Your task to perform on an android device: turn smart compose on in the gmail app Image 0: 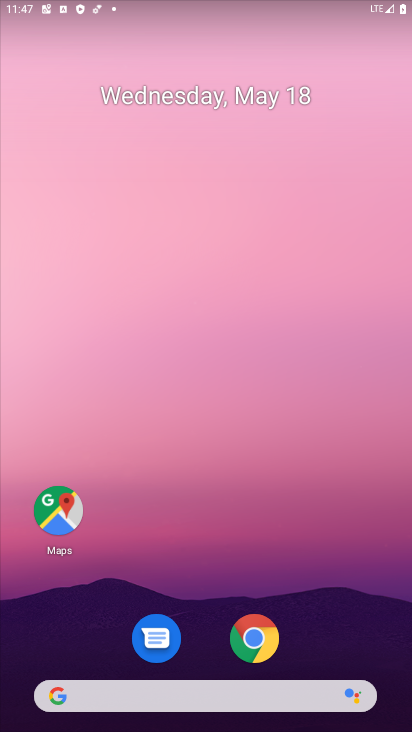
Step 0: drag from (353, 611) to (281, 70)
Your task to perform on an android device: turn smart compose on in the gmail app Image 1: 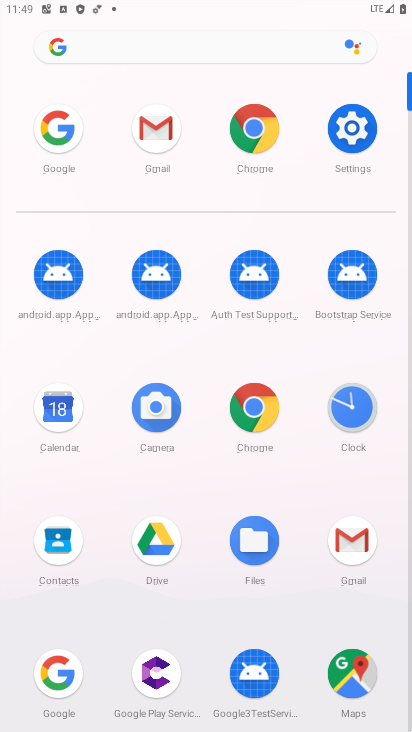
Step 1: click (169, 154)
Your task to perform on an android device: turn smart compose on in the gmail app Image 2: 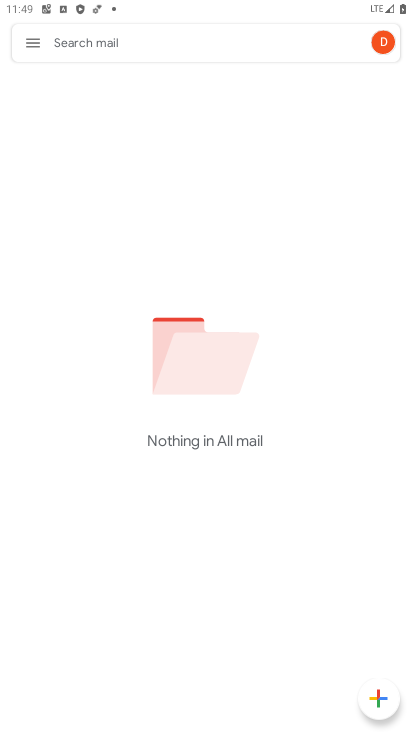
Step 2: click (30, 40)
Your task to perform on an android device: turn smart compose on in the gmail app Image 3: 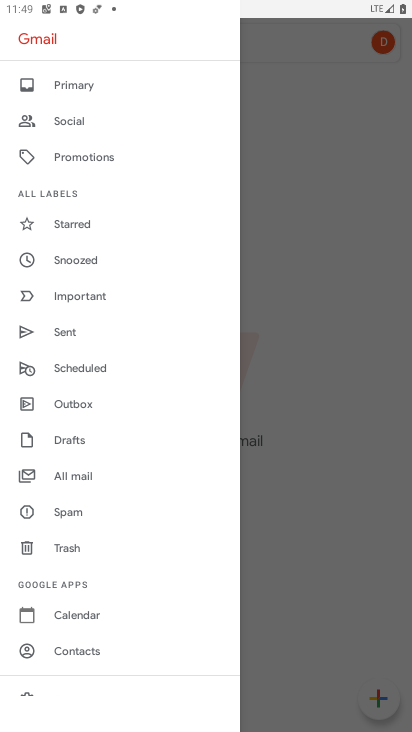
Step 3: drag from (74, 609) to (126, 140)
Your task to perform on an android device: turn smart compose on in the gmail app Image 4: 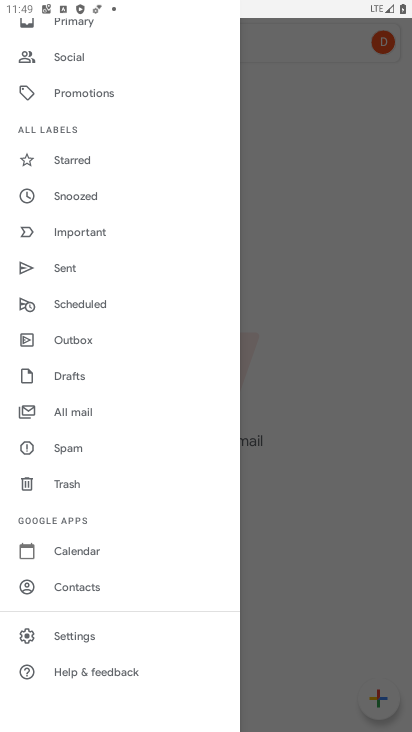
Step 4: click (77, 632)
Your task to perform on an android device: turn smart compose on in the gmail app Image 5: 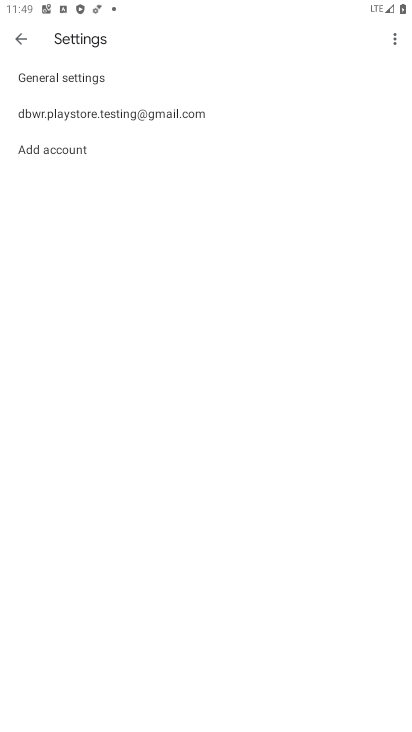
Step 5: click (151, 122)
Your task to perform on an android device: turn smart compose on in the gmail app Image 6: 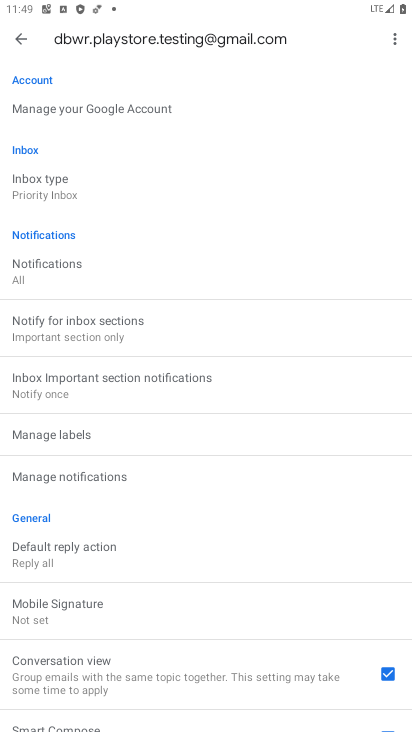
Step 6: task complete